Your task to perform on an android device: Open Google Image 0: 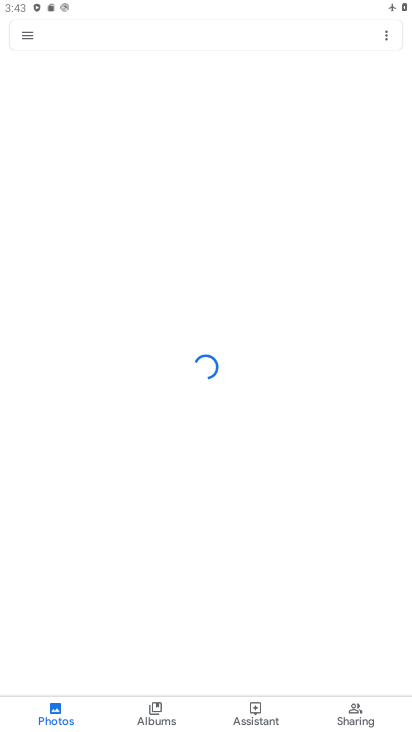
Step 0: press home button
Your task to perform on an android device: Open Google Image 1: 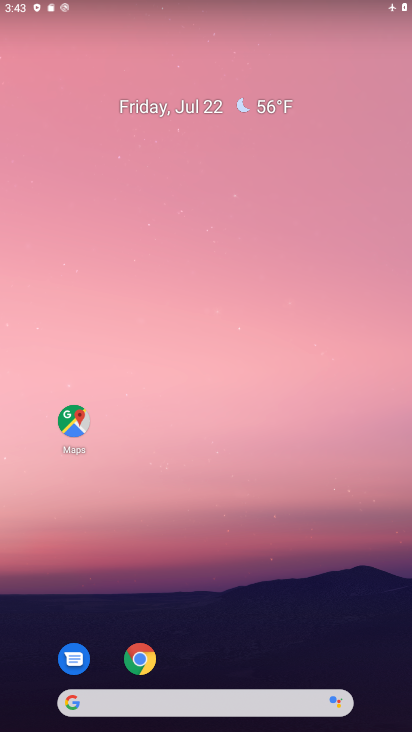
Step 1: drag from (207, 697) to (214, 260)
Your task to perform on an android device: Open Google Image 2: 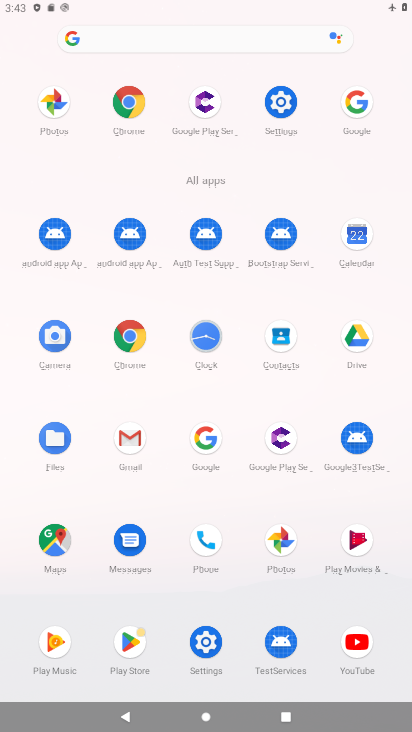
Step 2: click (213, 432)
Your task to perform on an android device: Open Google Image 3: 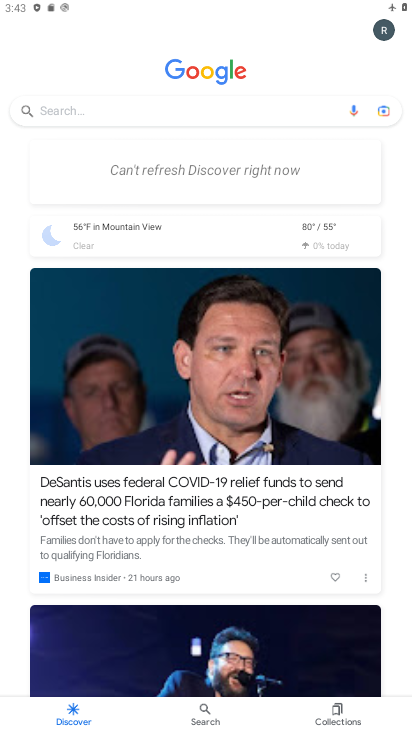
Step 3: task complete